Your task to perform on an android device: Google the capital of Bolivia Image 0: 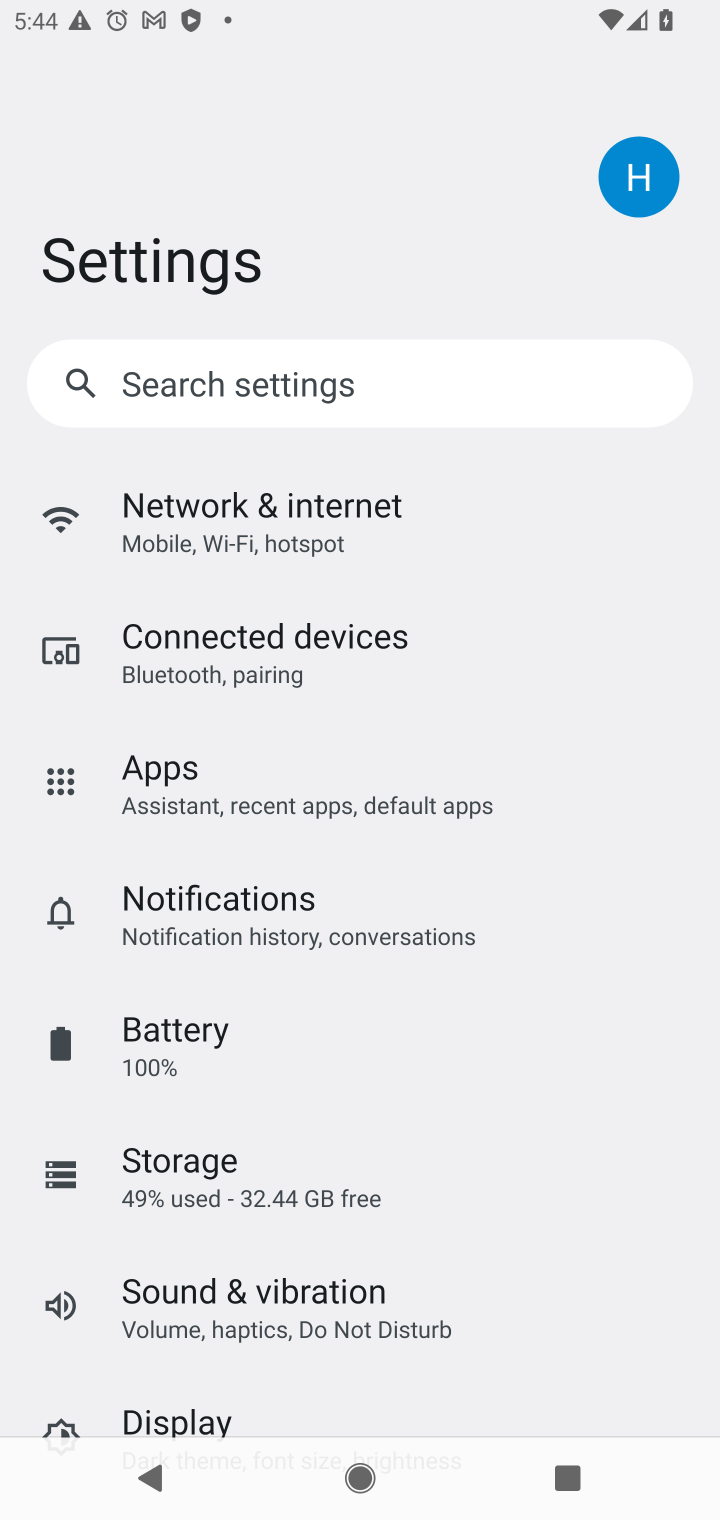
Step 0: press home button
Your task to perform on an android device: Google the capital of Bolivia Image 1: 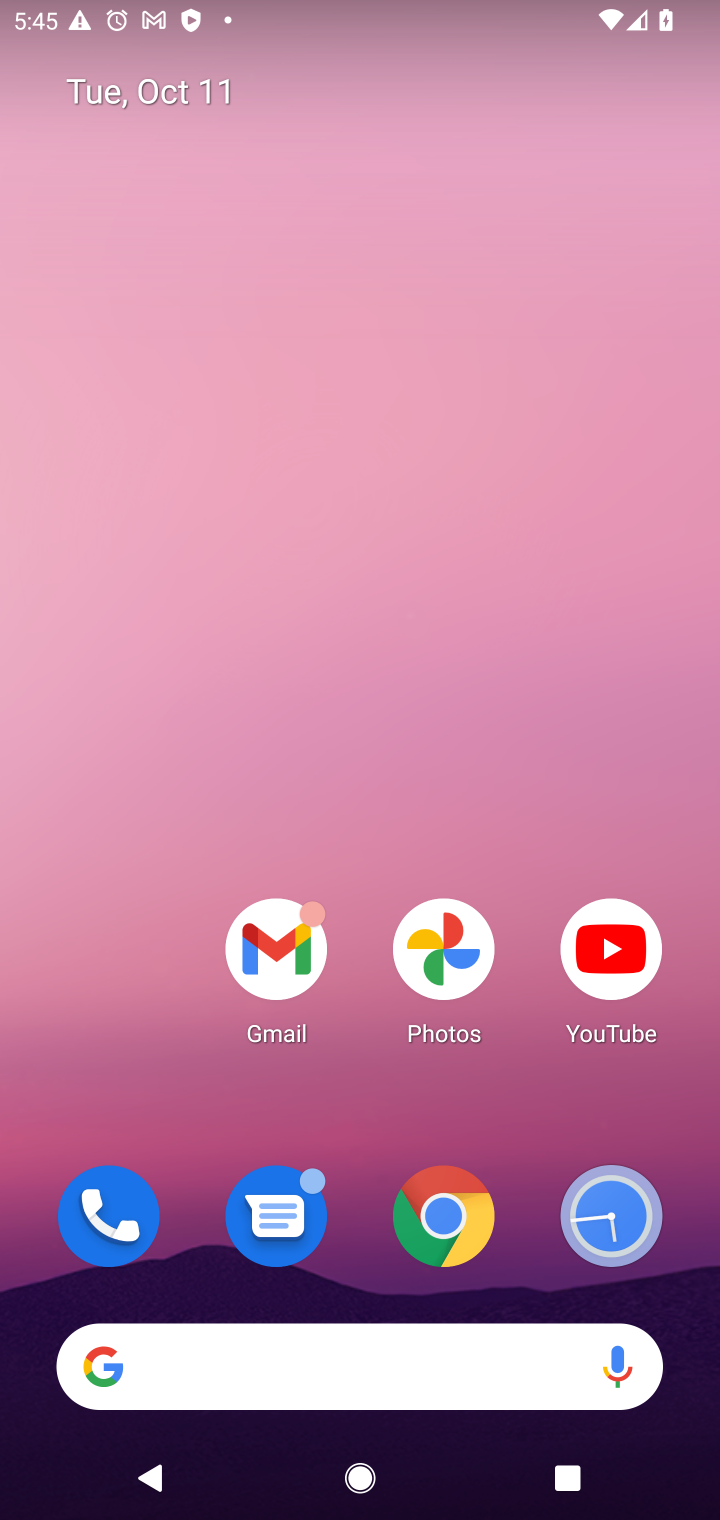
Step 1: click (425, 1235)
Your task to perform on an android device: Google the capital of Bolivia Image 2: 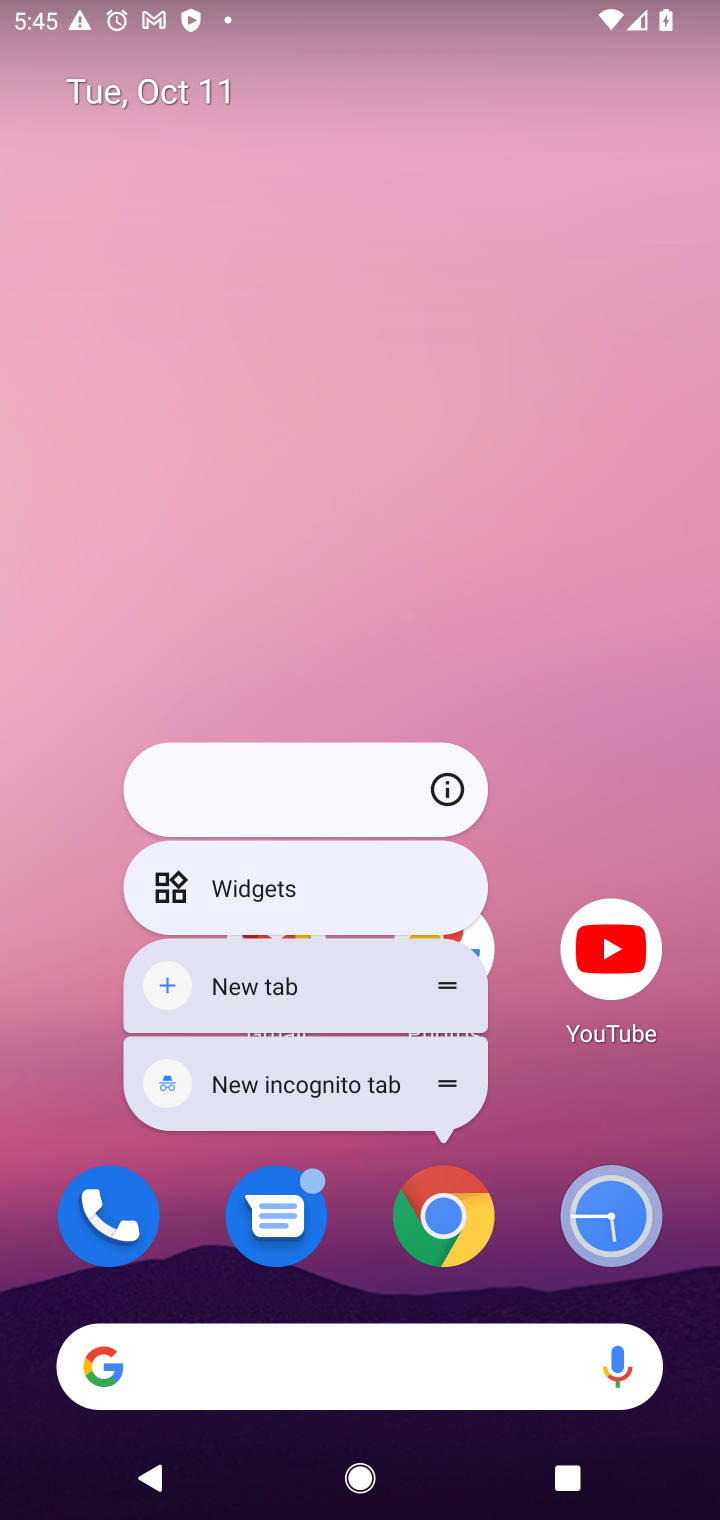
Step 2: click (425, 1234)
Your task to perform on an android device: Google the capital of Bolivia Image 3: 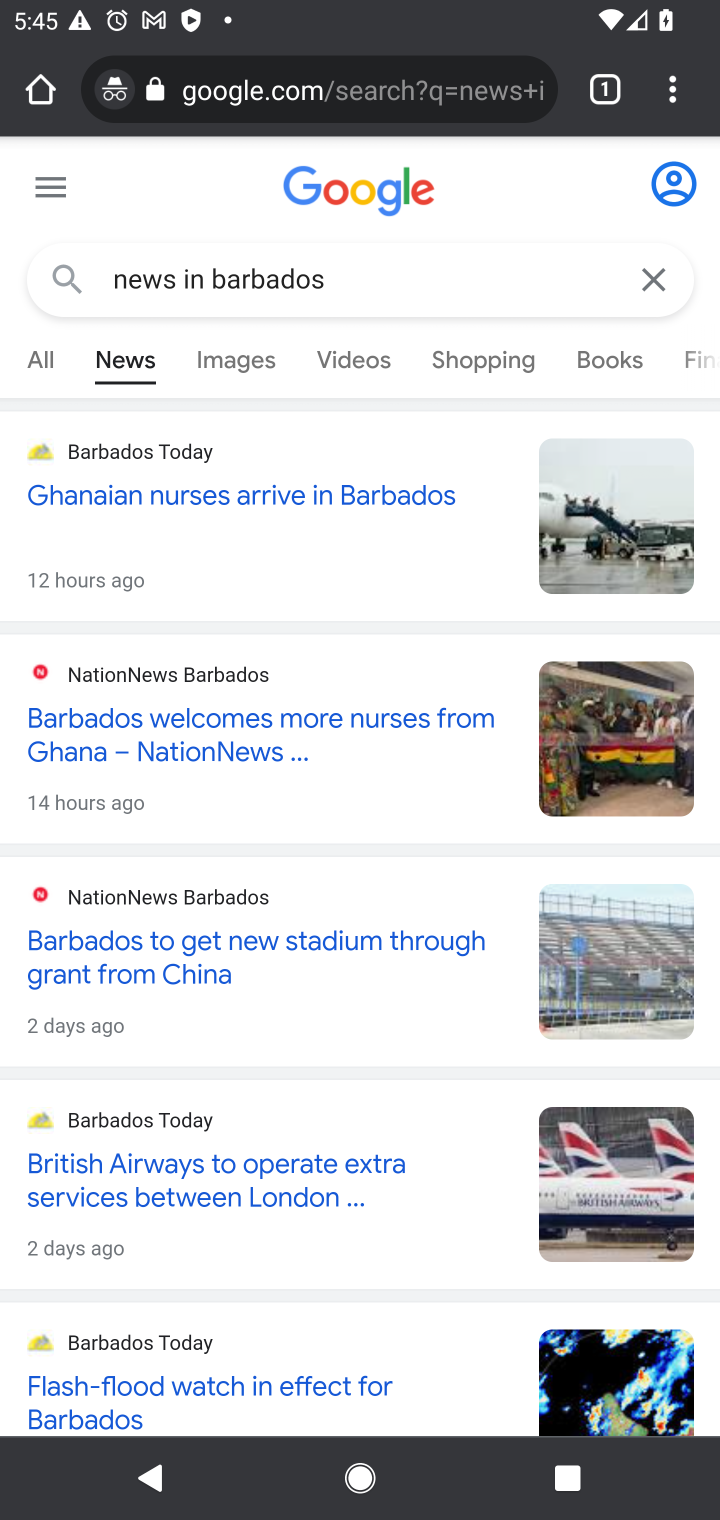
Step 3: click (655, 298)
Your task to perform on an android device: Google the capital of Bolivia Image 4: 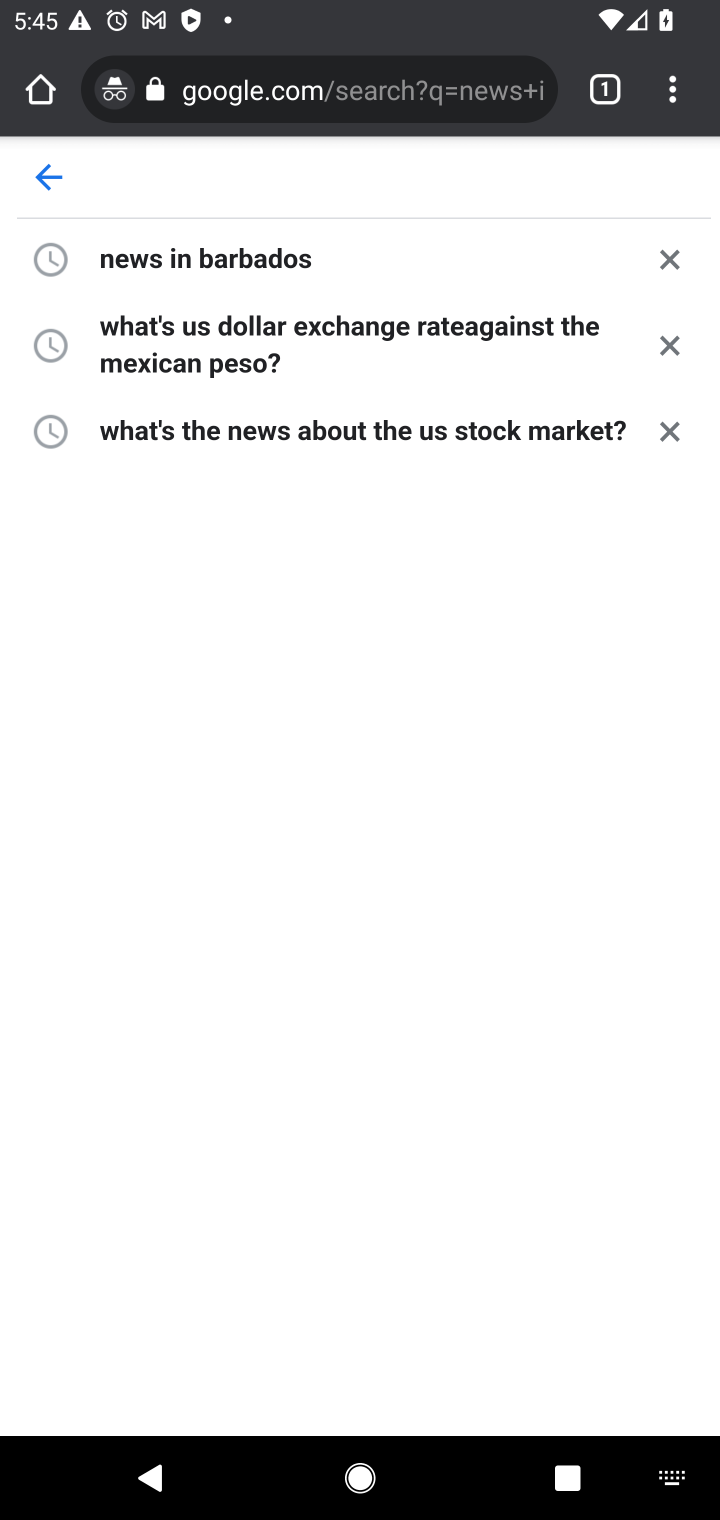
Step 4: type "capital of Bolivia"
Your task to perform on an android device: Google the capital of Bolivia Image 5: 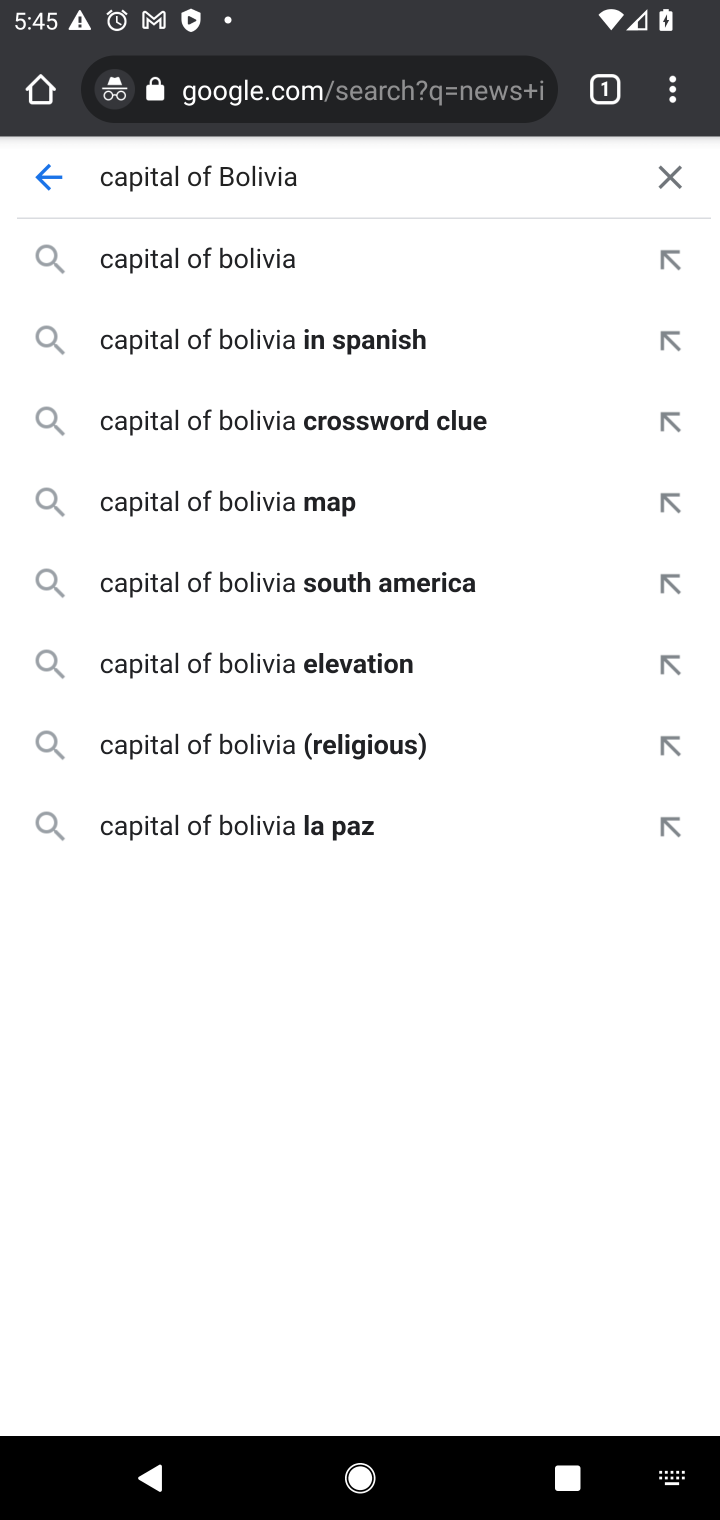
Step 5: press enter
Your task to perform on an android device: Google the capital of Bolivia Image 6: 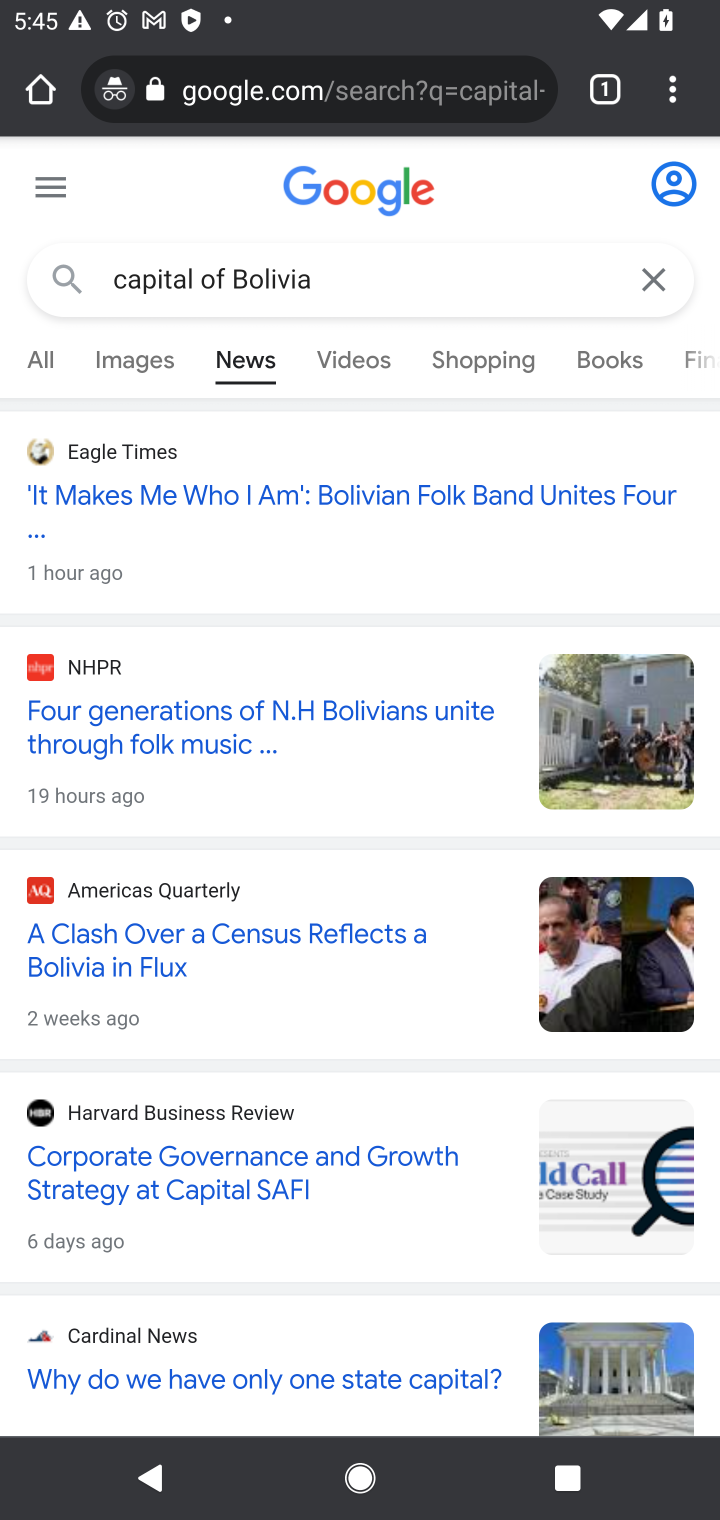
Step 6: click (30, 366)
Your task to perform on an android device: Google the capital of Bolivia Image 7: 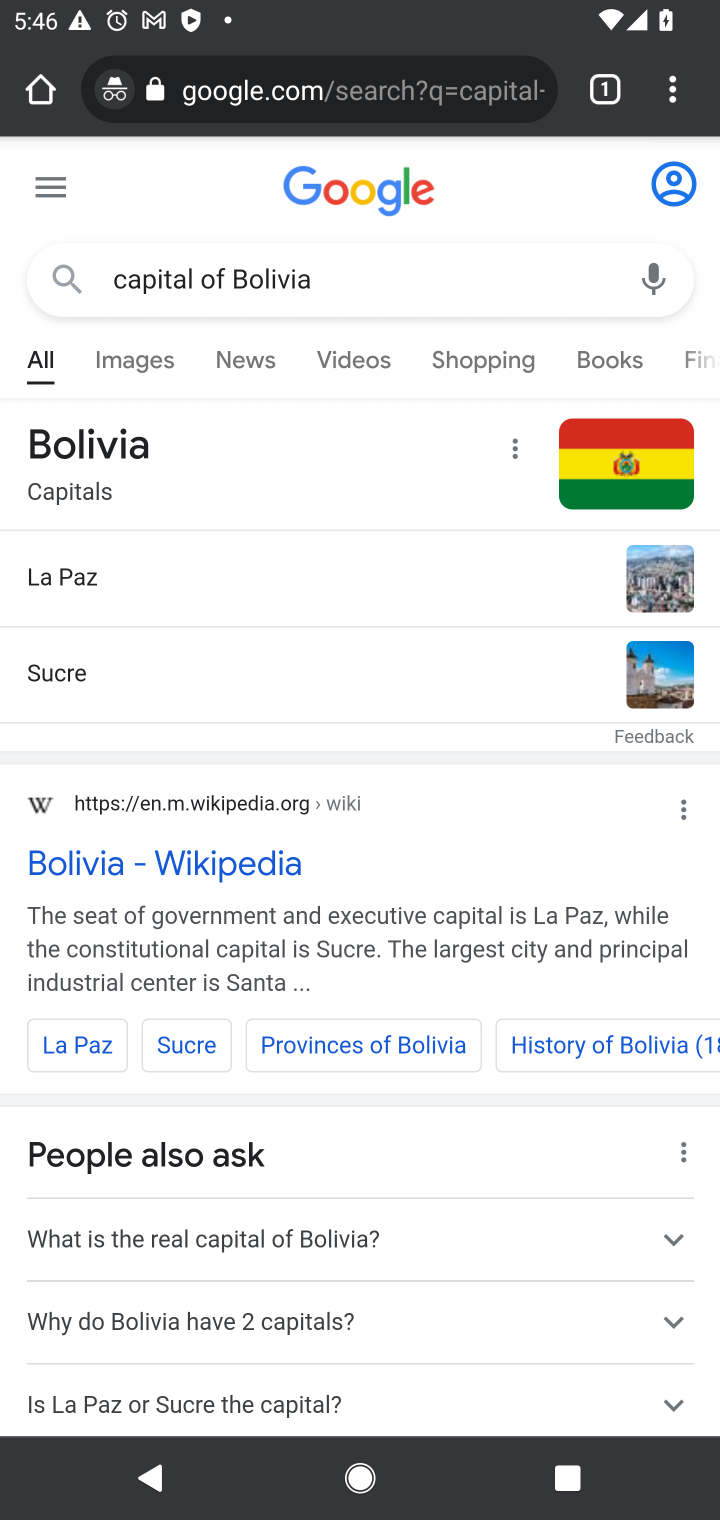
Step 7: task complete